Your task to perform on an android device: Go to sound settings Image 0: 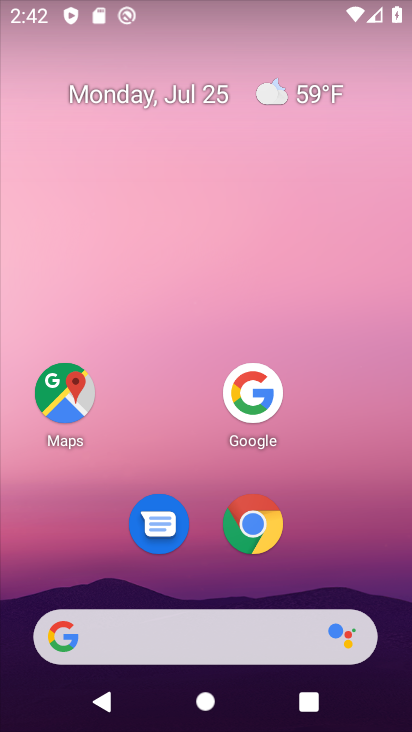
Step 0: press home button
Your task to perform on an android device: Go to sound settings Image 1: 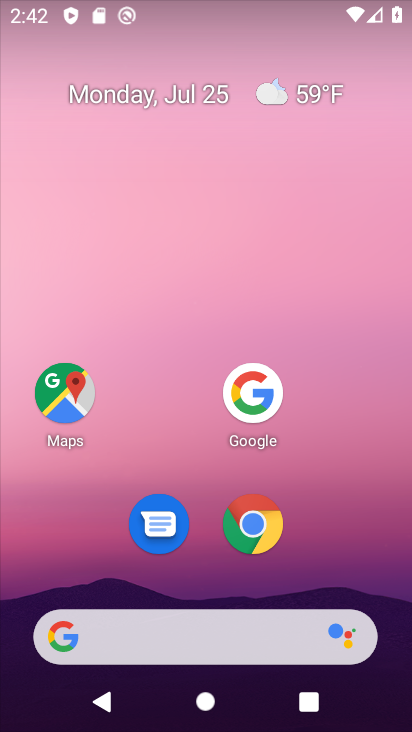
Step 1: drag from (189, 634) to (319, 54)
Your task to perform on an android device: Go to sound settings Image 2: 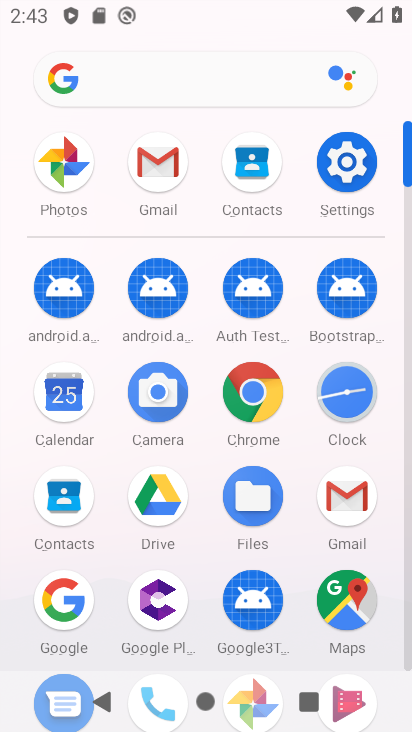
Step 2: click (348, 163)
Your task to perform on an android device: Go to sound settings Image 3: 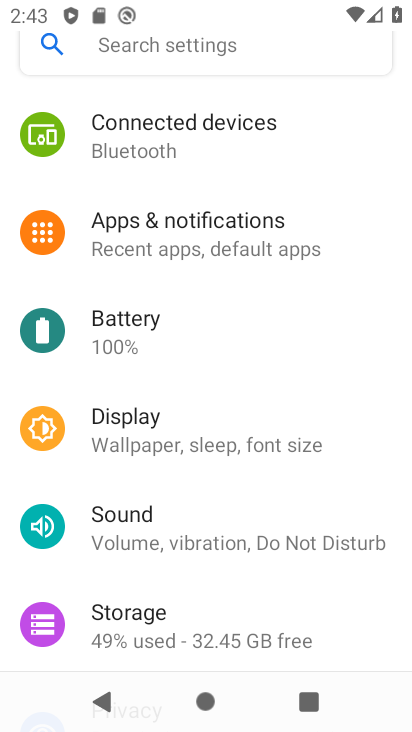
Step 3: drag from (291, 161) to (274, 540)
Your task to perform on an android device: Go to sound settings Image 4: 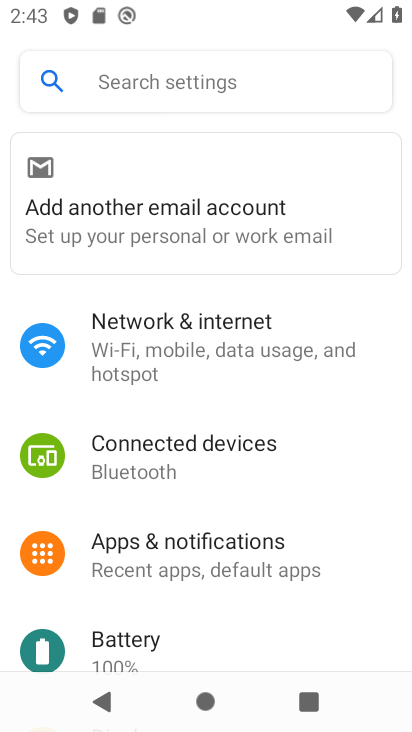
Step 4: drag from (231, 600) to (336, 109)
Your task to perform on an android device: Go to sound settings Image 5: 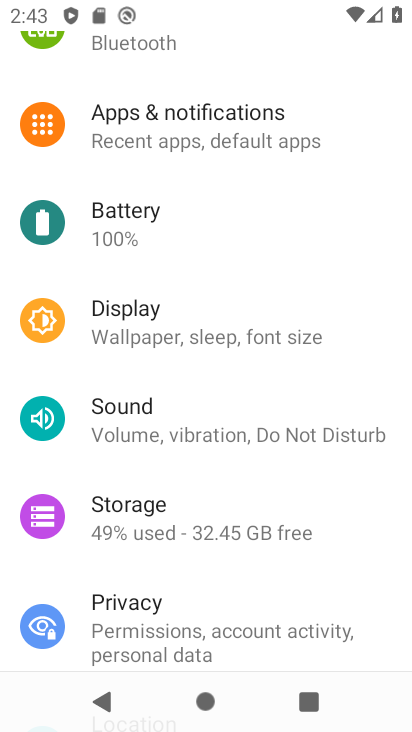
Step 5: click (131, 405)
Your task to perform on an android device: Go to sound settings Image 6: 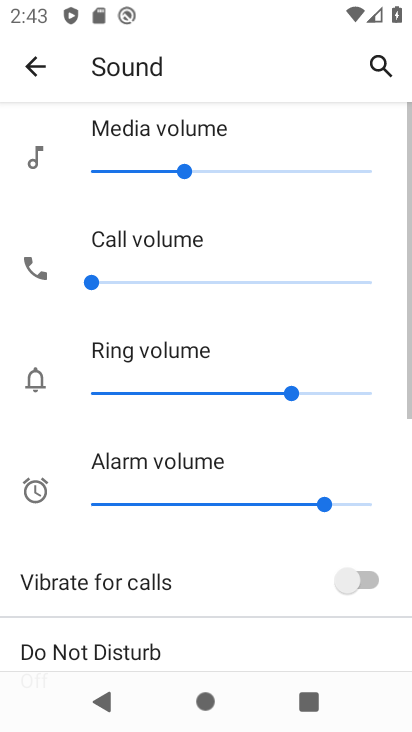
Step 6: task complete